Your task to perform on an android device: refresh tabs in the chrome app Image 0: 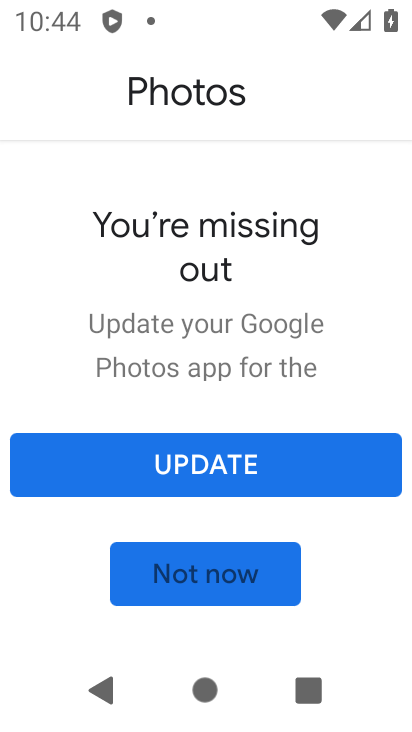
Step 0: press home button
Your task to perform on an android device: refresh tabs in the chrome app Image 1: 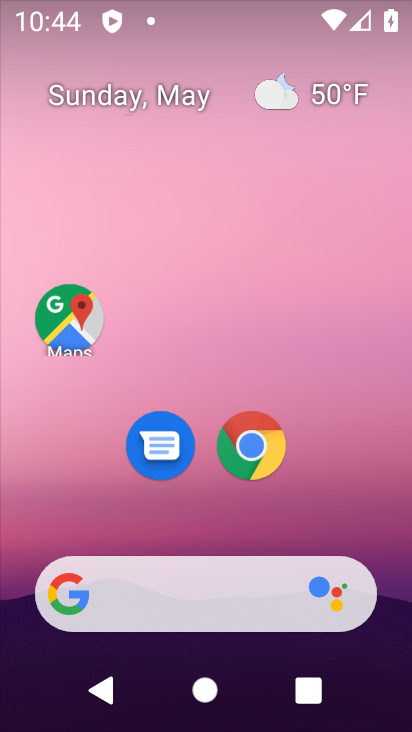
Step 1: click (259, 428)
Your task to perform on an android device: refresh tabs in the chrome app Image 2: 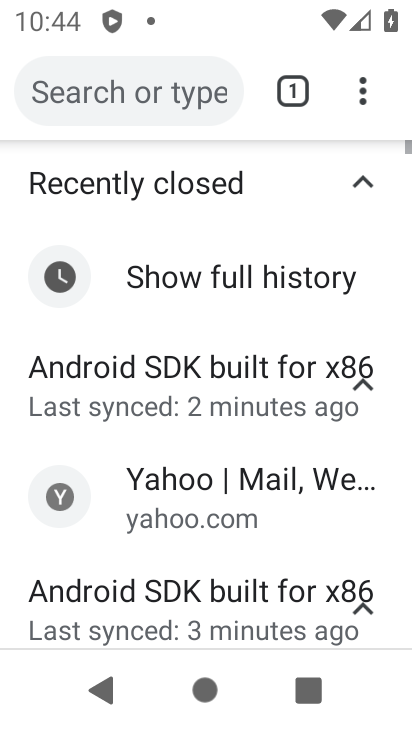
Step 2: click (360, 89)
Your task to perform on an android device: refresh tabs in the chrome app Image 3: 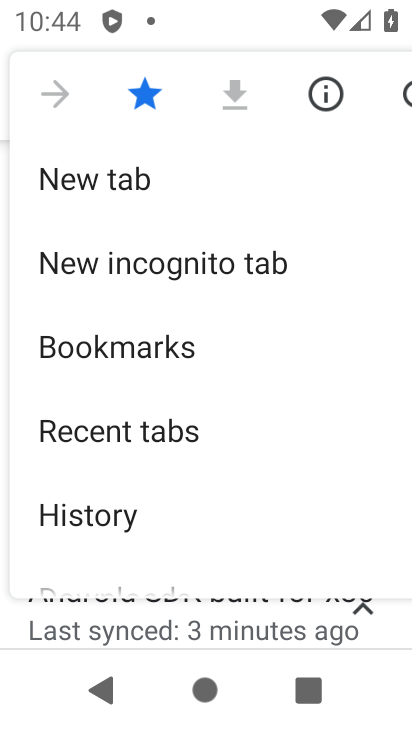
Step 3: click (407, 92)
Your task to perform on an android device: refresh tabs in the chrome app Image 4: 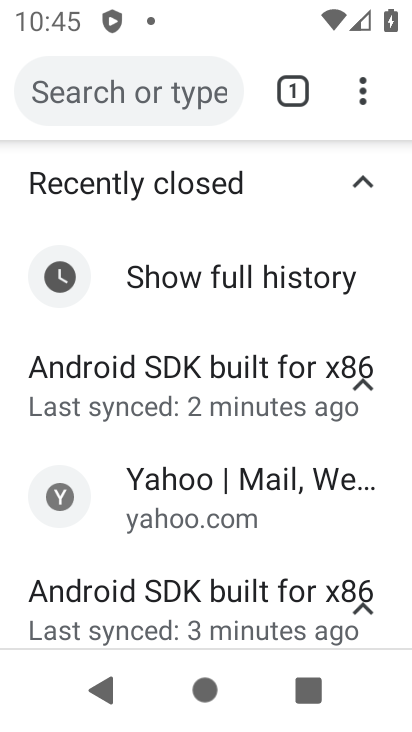
Step 4: task complete